Your task to perform on an android device: Open calendar and show me the fourth week of next month Image 0: 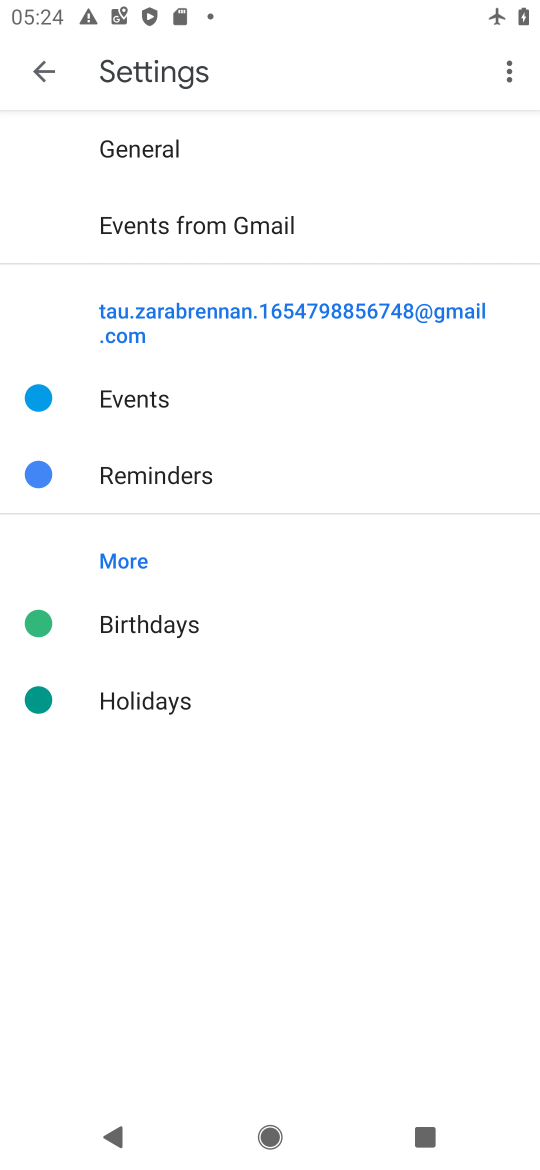
Step 0: press home button
Your task to perform on an android device: Open calendar and show me the fourth week of next month Image 1: 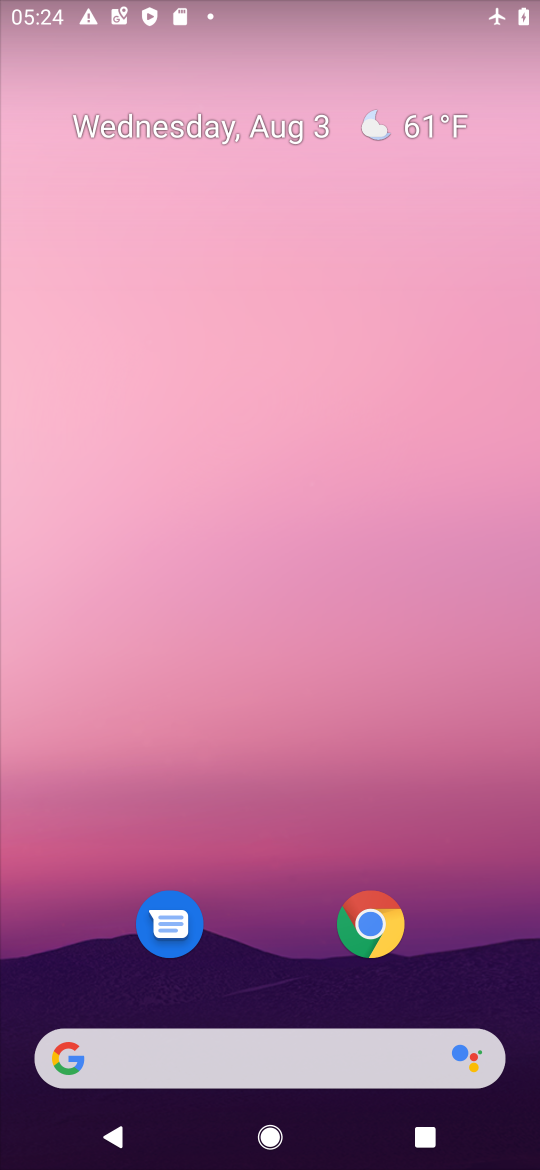
Step 1: drag from (264, 820) to (266, 339)
Your task to perform on an android device: Open calendar and show me the fourth week of next month Image 2: 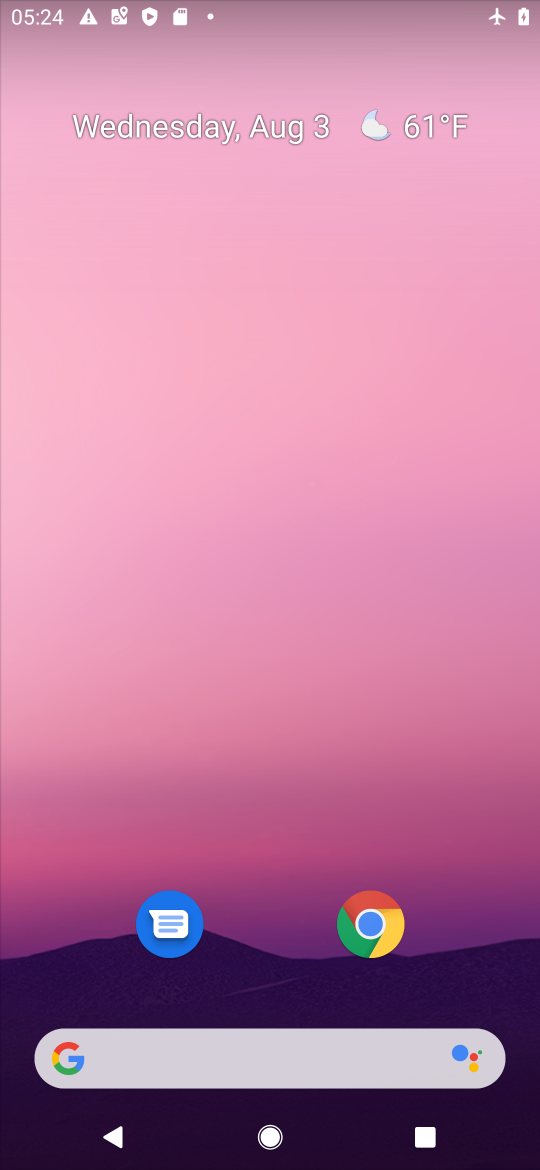
Step 2: drag from (268, 875) to (268, 276)
Your task to perform on an android device: Open calendar and show me the fourth week of next month Image 3: 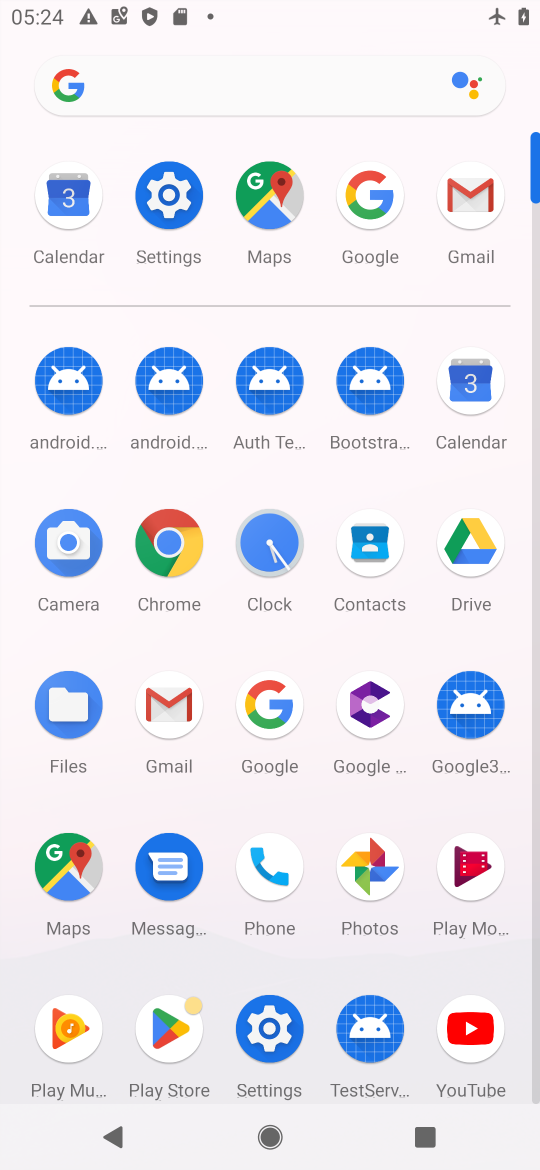
Step 3: click (469, 388)
Your task to perform on an android device: Open calendar and show me the fourth week of next month Image 4: 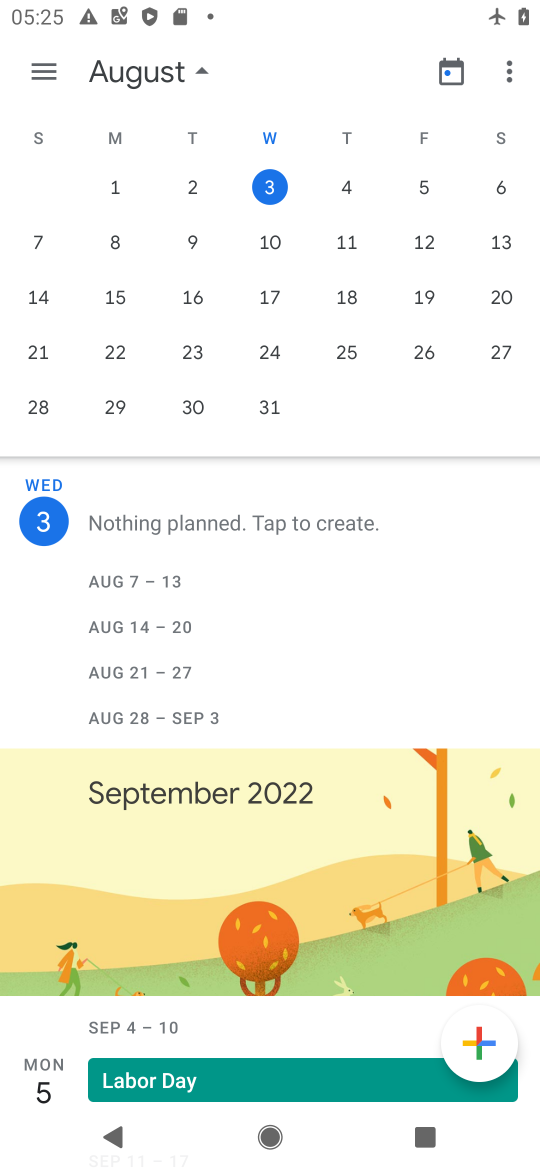
Step 4: drag from (443, 239) to (2, 295)
Your task to perform on an android device: Open calendar and show me the fourth week of next month Image 5: 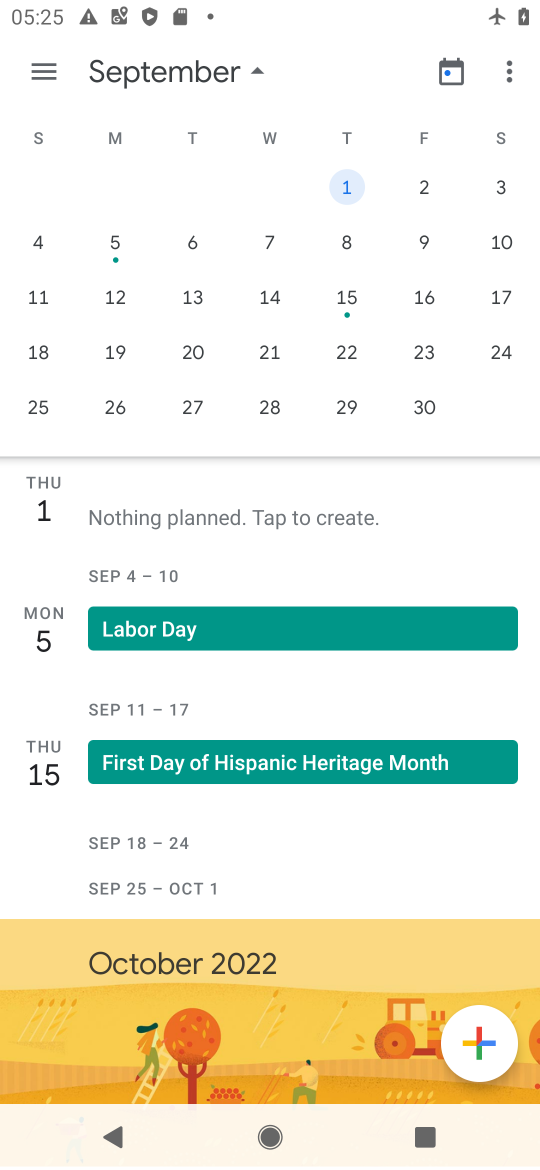
Step 5: click (31, 341)
Your task to perform on an android device: Open calendar and show me the fourth week of next month Image 6: 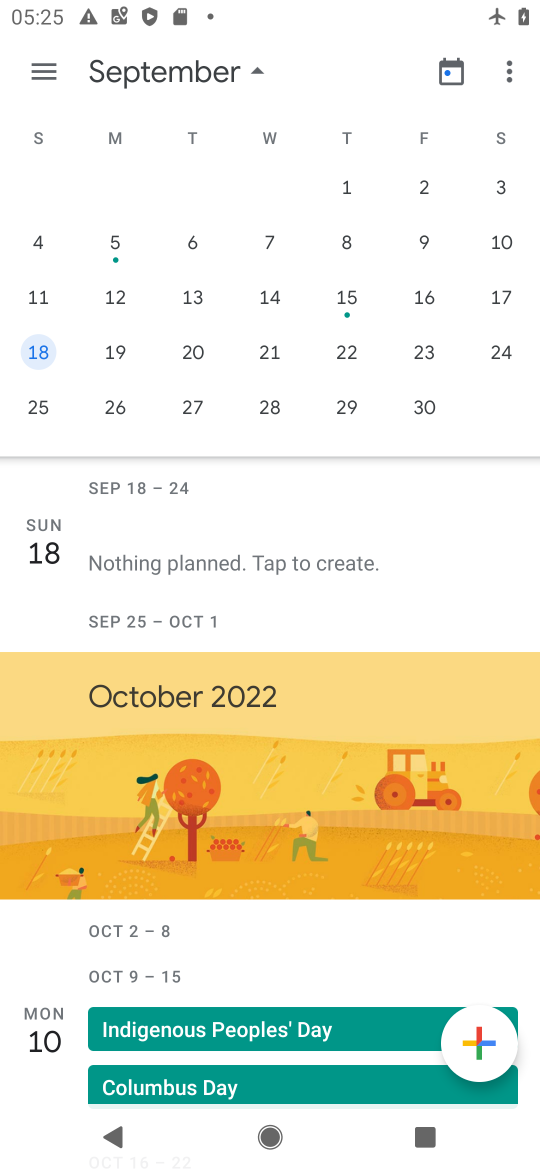
Step 6: task complete